Your task to perform on an android device: change the clock display to analog Image 0: 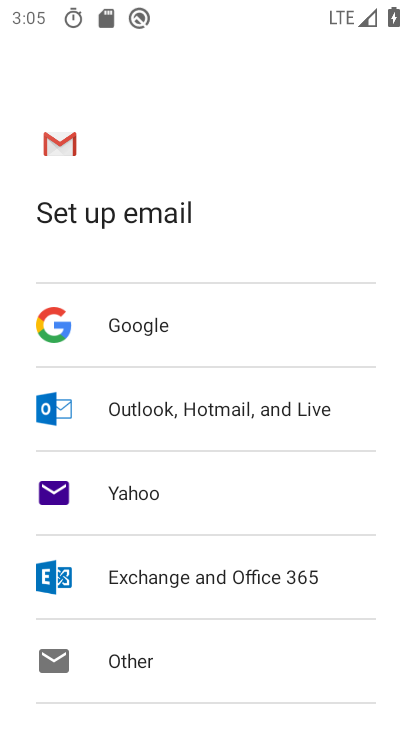
Step 0: press home button
Your task to perform on an android device: change the clock display to analog Image 1: 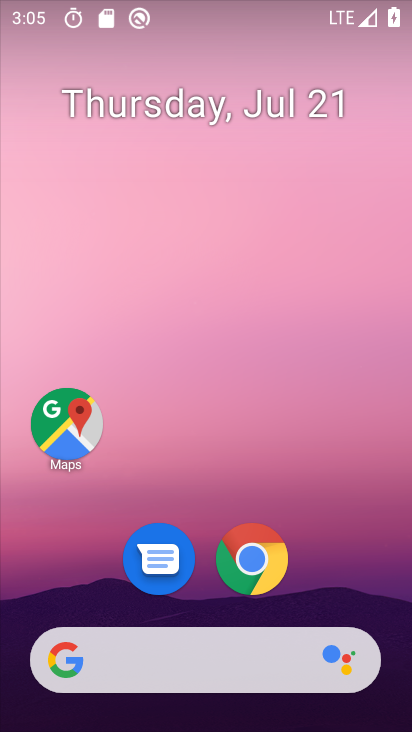
Step 1: drag from (364, 569) to (375, 137)
Your task to perform on an android device: change the clock display to analog Image 2: 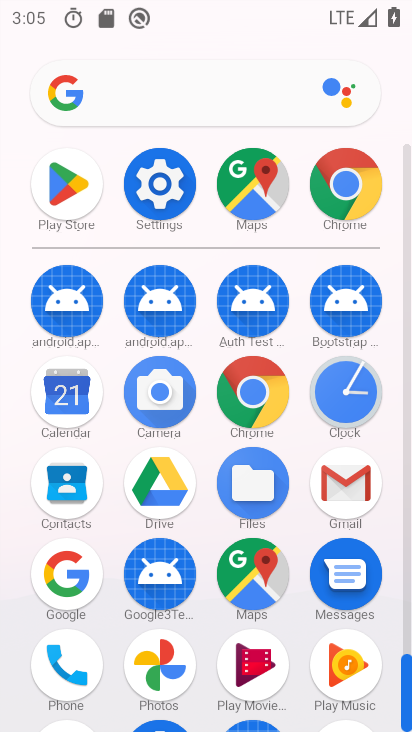
Step 2: click (344, 392)
Your task to perform on an android device: change the clock display to analog Image 3: 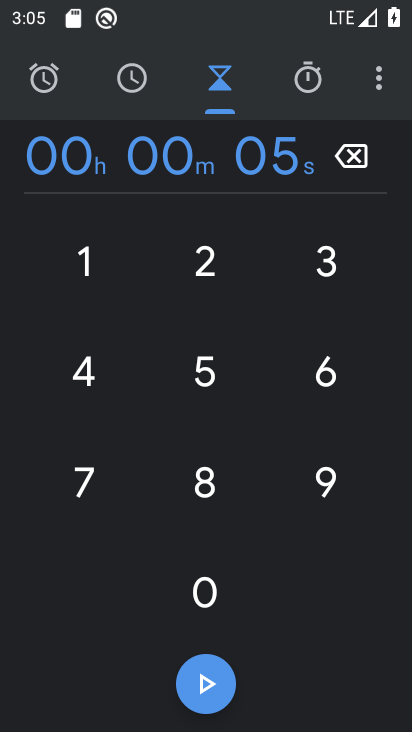
Step 3: click (375, 90)
Your task to perform on an android device: change the clock display to analog Image 4: 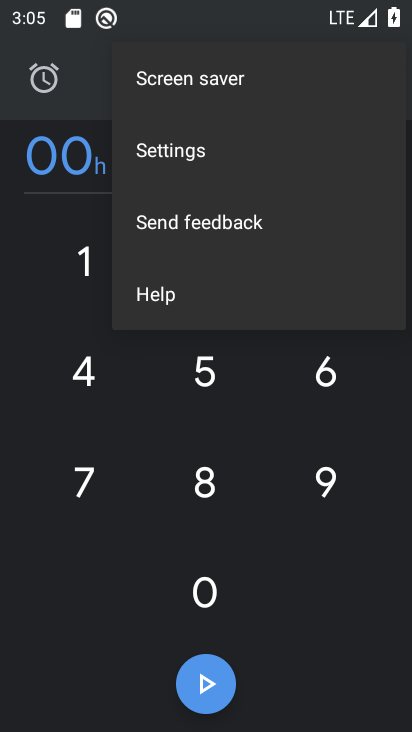
Step 4: click (229, 155)
Your task to perform on an android device: change the clock display to analog Image 5: 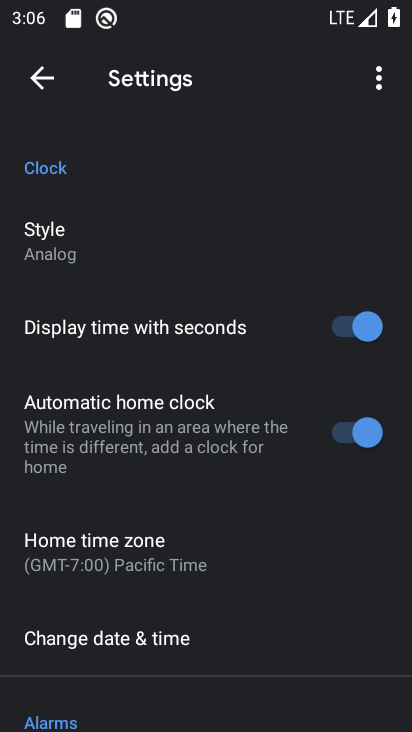
Step 5: drag from (272, 495) to (281, 432)
Your task to perform on an android device: change the clock display to analog Image 6: 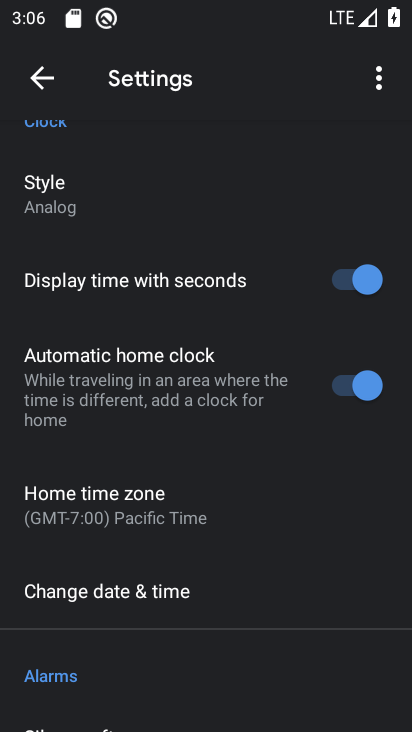
Step 6: click (280, 482)
Your task to perform on an android device: change the clock display to analog Image 7: 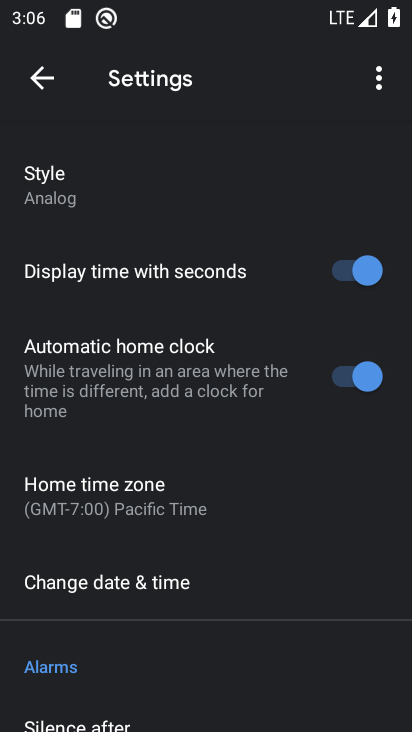
Step 7: task complete